Your task to perform on an android device: change the clock display to show seconds Image 0: 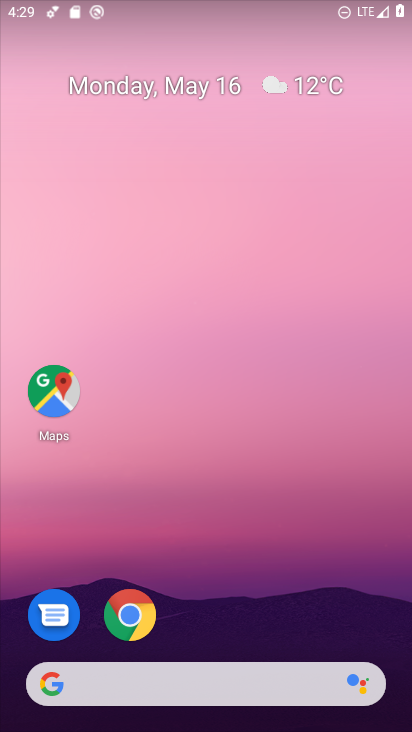
Step 0: drag from (240, 721) to (243, 126)
Your task to perform on an android device: change the clock display to show seconds Image 1: 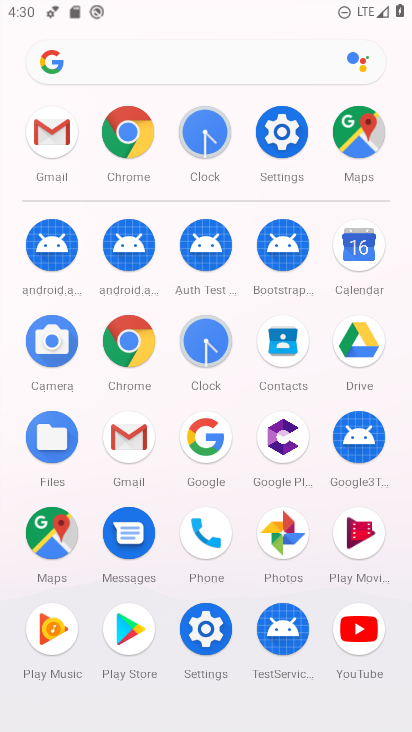
Step 1: click (202, 342)
Your task to perform on an android device: change the clock display to show seconds Image 2: 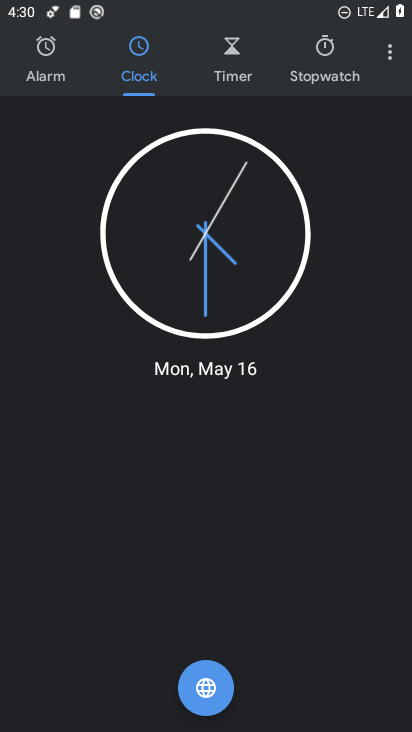
Step 2: click (392, 55)
Your task to perform on an android device: change the clock display to show seconds Image 3: 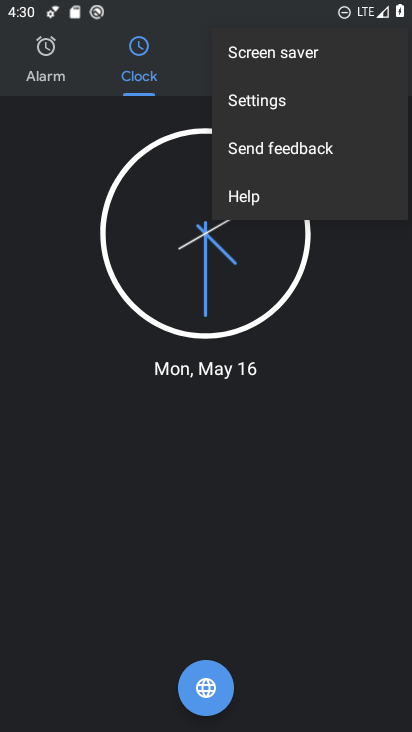
Step 3: click (252, 95)
Your task to perform on an android device: change the clock display to show seconds Image 4: 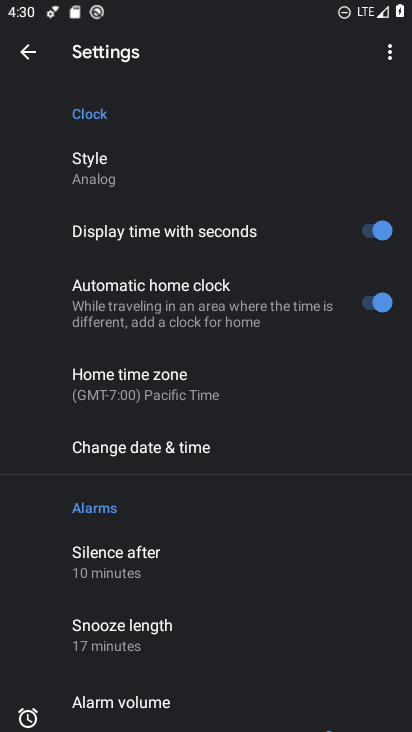
Step 4: task complete